Your task to perform on an android device: Go to battery settings Image 0: 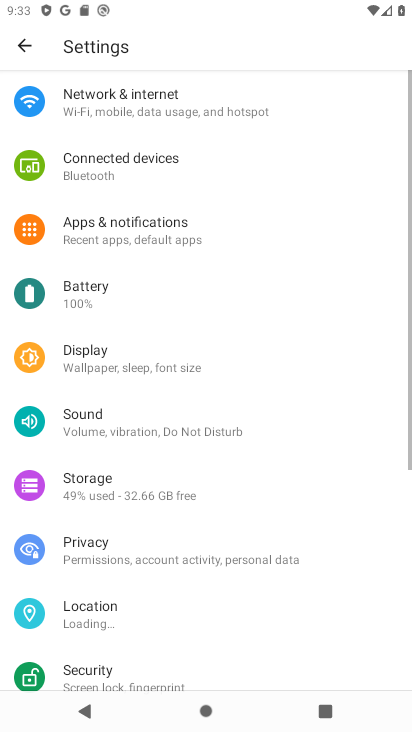
Step 0: press home button
Your task to perform on an android device: Go to battery settings Image 1: 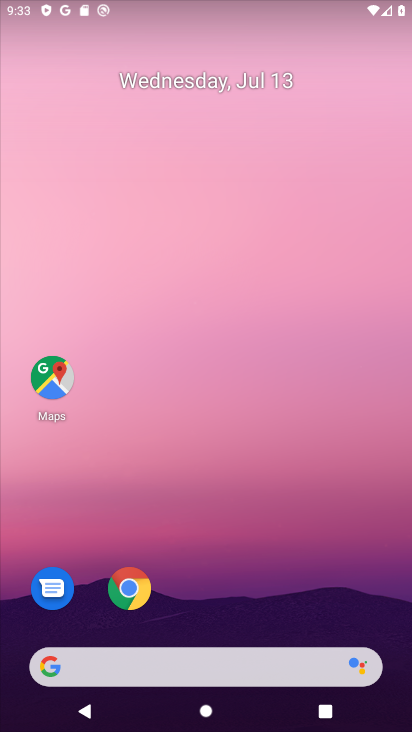
Step 1: drag from (210, 576) to (281, 42)
Your task to perform on an android device: Go to battery settings Image 2: 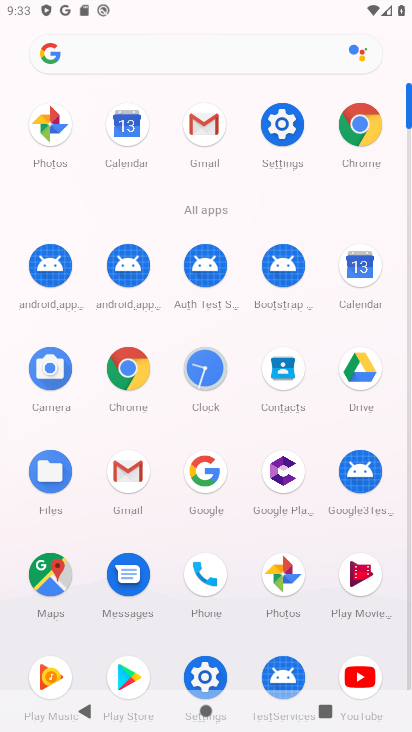
Step 2: click (279, 120)
Your task to perform on an android device: Go to battery settings Image 3: 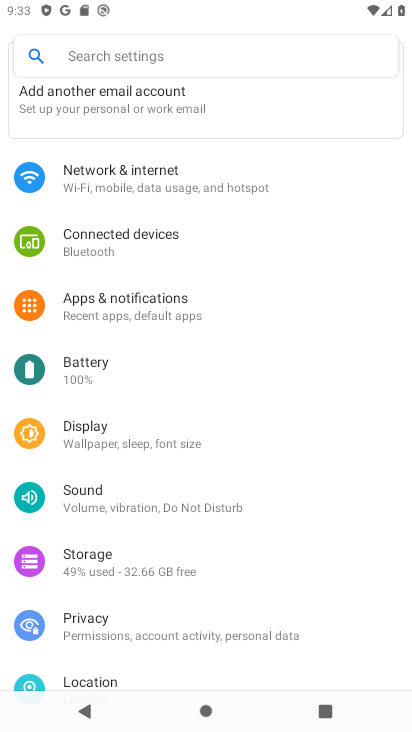
Step 3: click (91, 369)
Your task to perform on an android device: Go to battery settings Image 4: 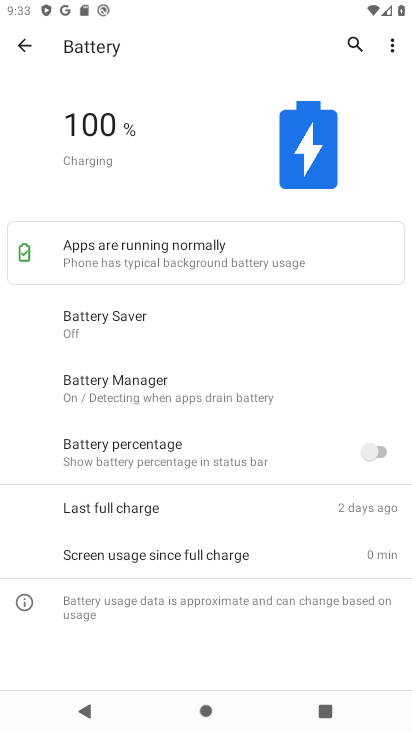
Step 4: task complete